Your task to perform on an android device: Turn off the flashlight Image 0: 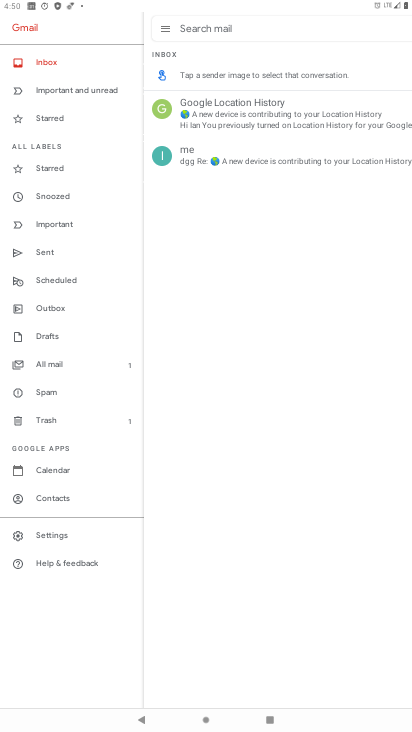
Step 0: press home button
Your task to perform on an android device: Turn off the flashlight Image 1: 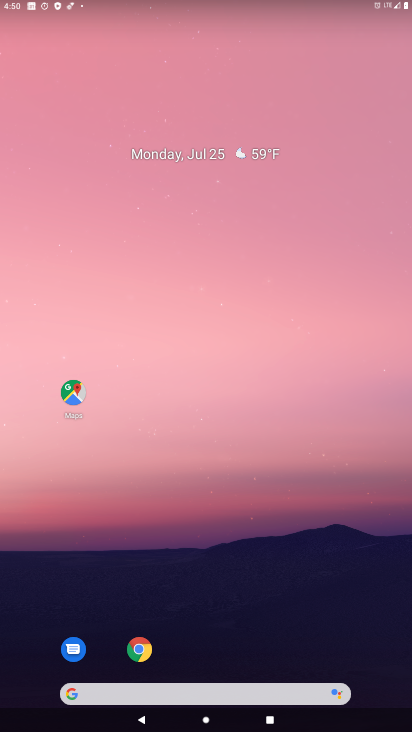
Step 1: drag from (278, 2) to (294, 558)
Your task to perform on an android device: Turn off the flashlight Image 2: 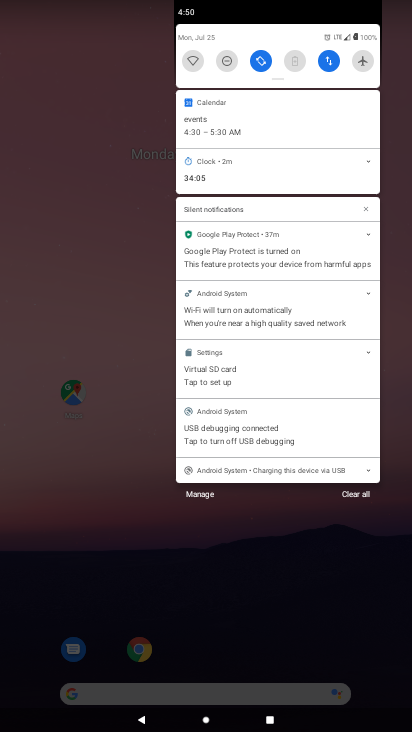
Step 2: drag from (274, 68) to (309, 559)
Your task to perform on an android device: Turn off the flashlight Image 3: 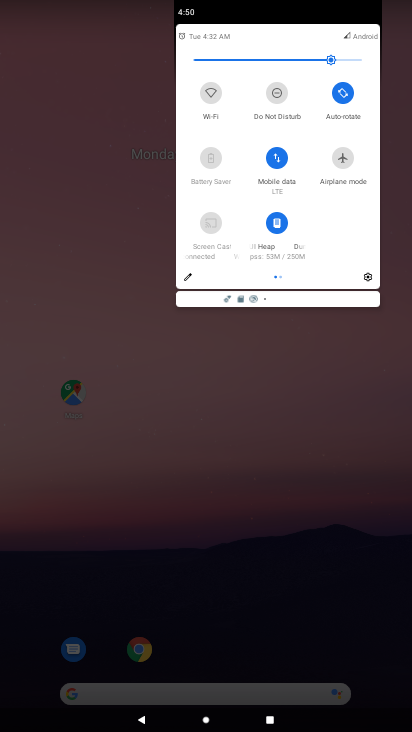
Step 3: click (193, 279)
Your task to perform on an android device: Turn off the flashlight Image 4: 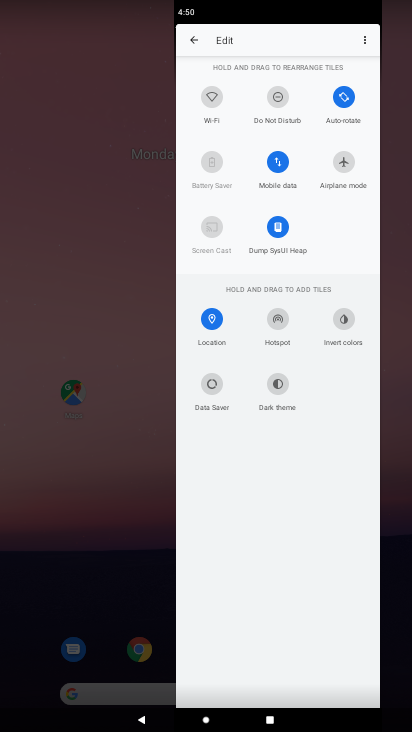
Step 4: task complete